Your task to perform on an android device: Search for sushi restaurants on Maps Image 0: 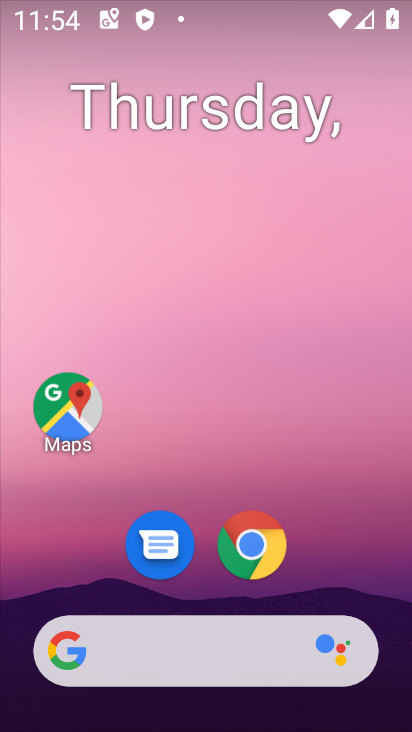
Step 0: click (67, 396)
Your task to perform on an android device: Search for sushi restaurants on Maps Image 1: 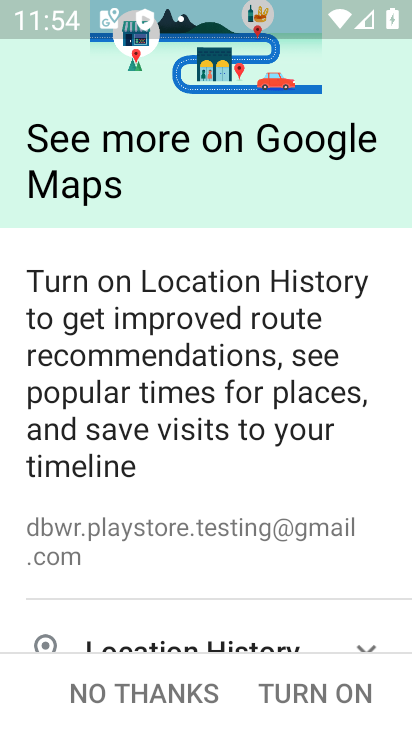
Step 1: click (284, 689)
Your task to perform on an android device: Search for sushi restaurants on Maps Image 2: 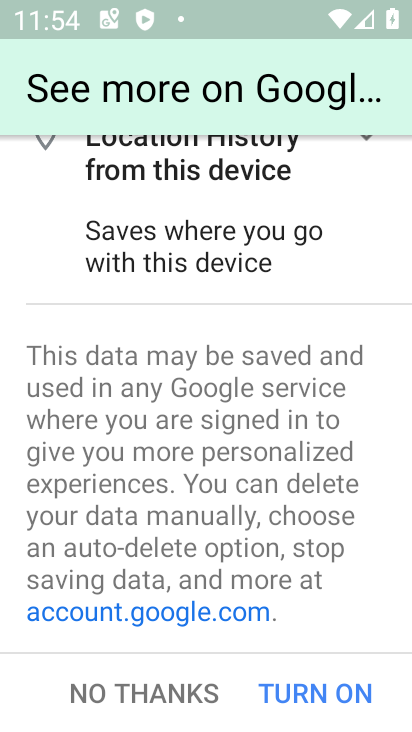
Step 2: click (293, 700)
Your task to perform on an android device: Search for sushi restaurants on Maps Image 3: 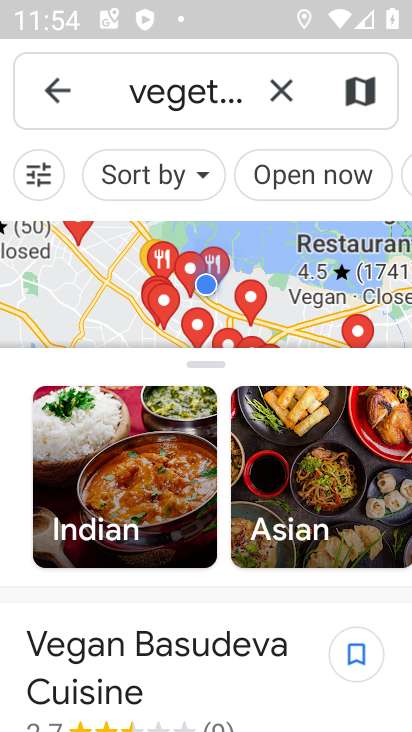
Step 3: click (262, 77)
Your task to perform on an android device: Search for sushi restaurants on Maps Image 4: 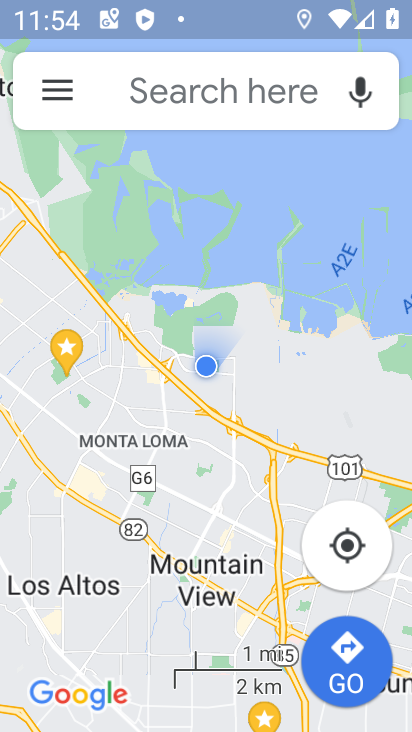
Step 4: click (204, 94)
Your task to perform on an android device: Search for sushi restaurants on Maps Image 5: 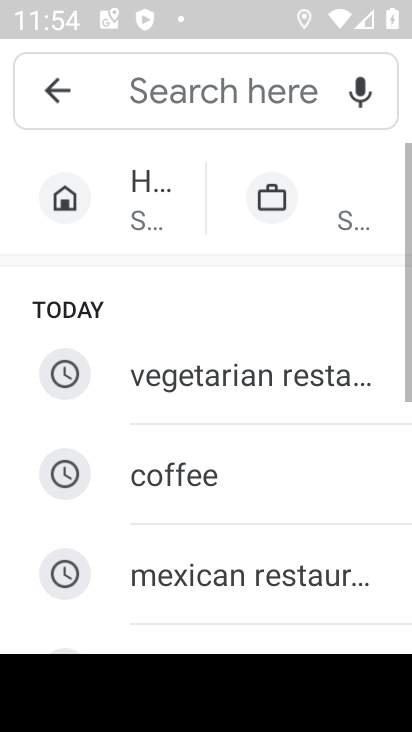
Step 5: drag from (241, 580) to (234, 346)
Your task to perform on an android device: Search for sushi restaurants on Maps Image 6: 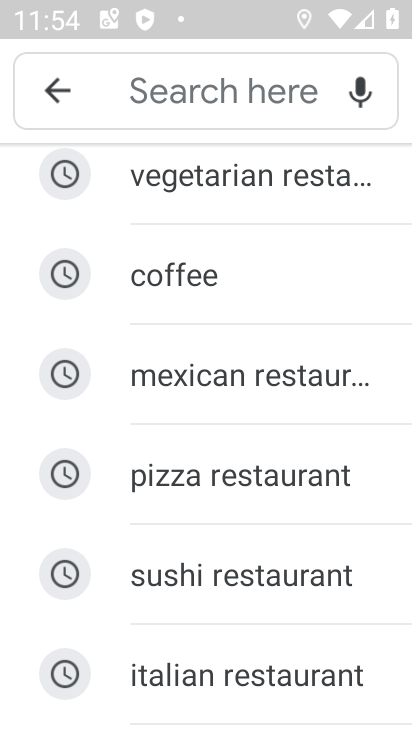
Step 6: click (236, 570)
Your task to perform on an android device: Search for sushi restaurants on Maps Image 7: 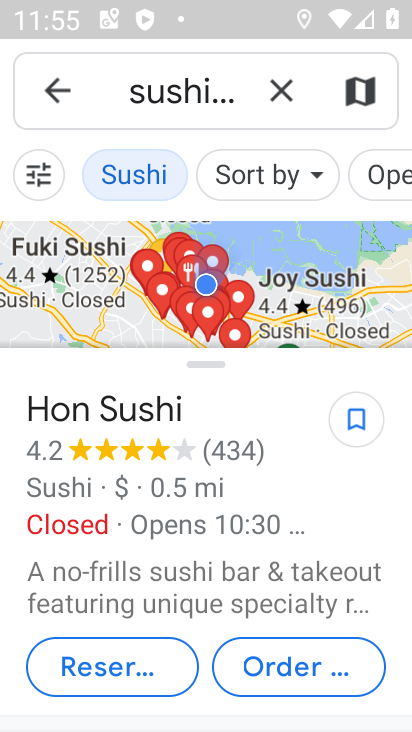
Step 7: task complete